Your task to perform on an android device: check out phone information Image 0: 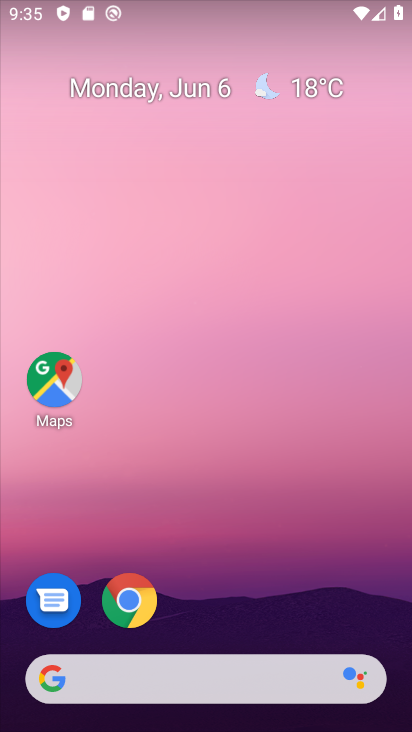
Step 0: drag from (252, 575) to (230, 7)
Your task to perform on an android device: check out phone information Image 1: 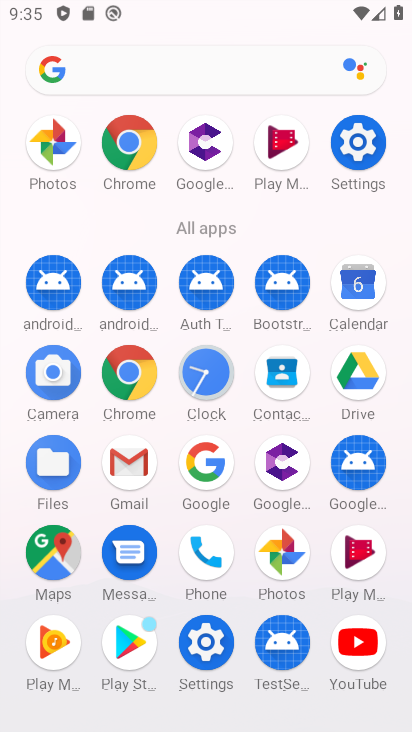
Step 1: drag from (8, 585) to (16, 271)
Your task to perform on an android device: check out phone information Image 2: 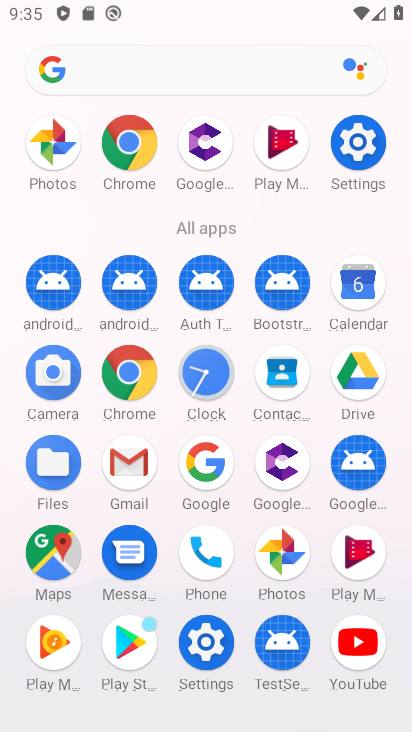
Step 2: click (207, 641)
Your task to perform on an android device: check out phone information Image 3: 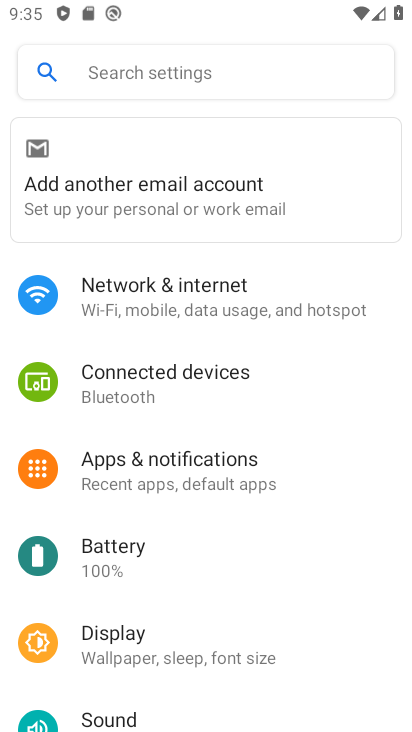
Step 3: drag from (238, 525) to (247, 110)
Your task to perform on an android device: check out phone information Image 4: 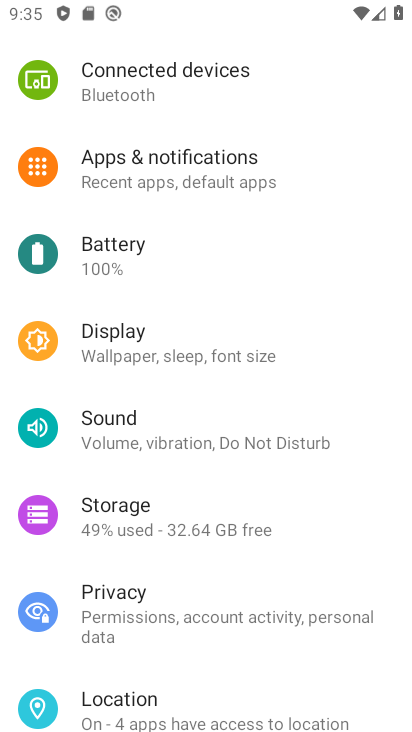
Step 4: drag from (282, 639) to (303, 156)
Your task to perform on an android device: check out phone information Image 5: 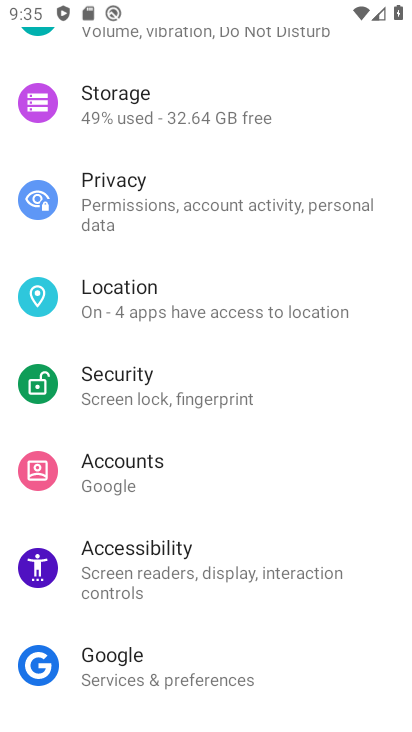
Step 5: drag from (201, 681) to (340, 180)
Your task to perform on an android device: check out phone information Image 6: 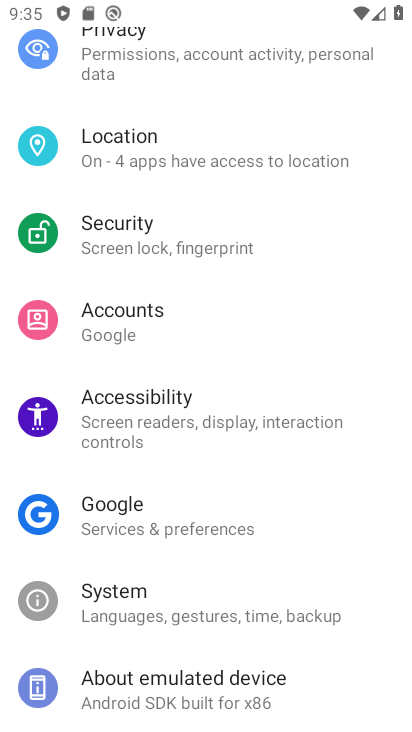
Step 6: click (203, 693)
Your task to perform on an android device: check out phone information Image 7: 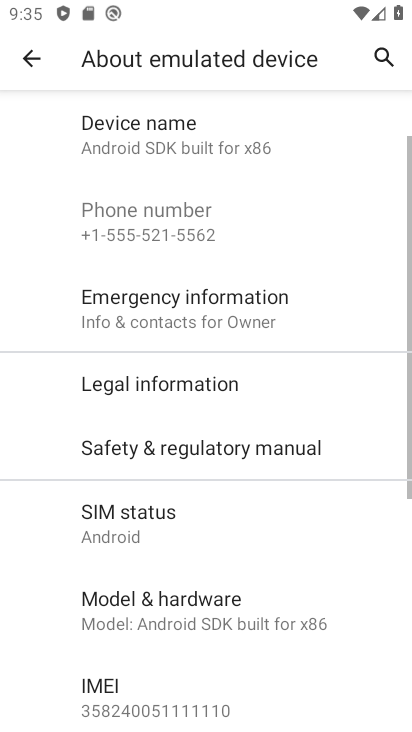
Step 7: task complete